Your task to perform on an android device: Open Amazon Image 0: 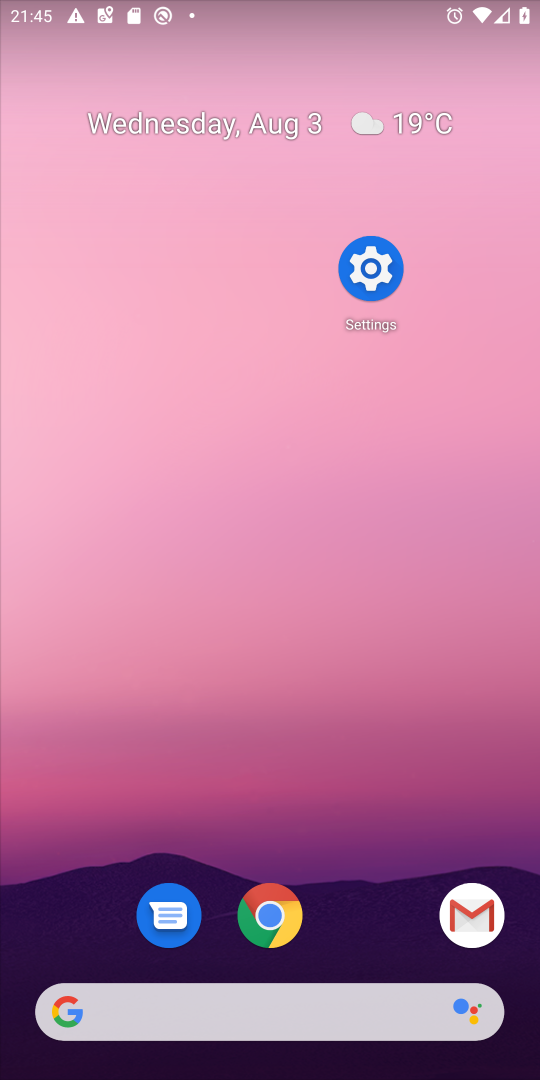
Step 0: press home button
Your task to perform on an android device: Open Amazon Image 1: 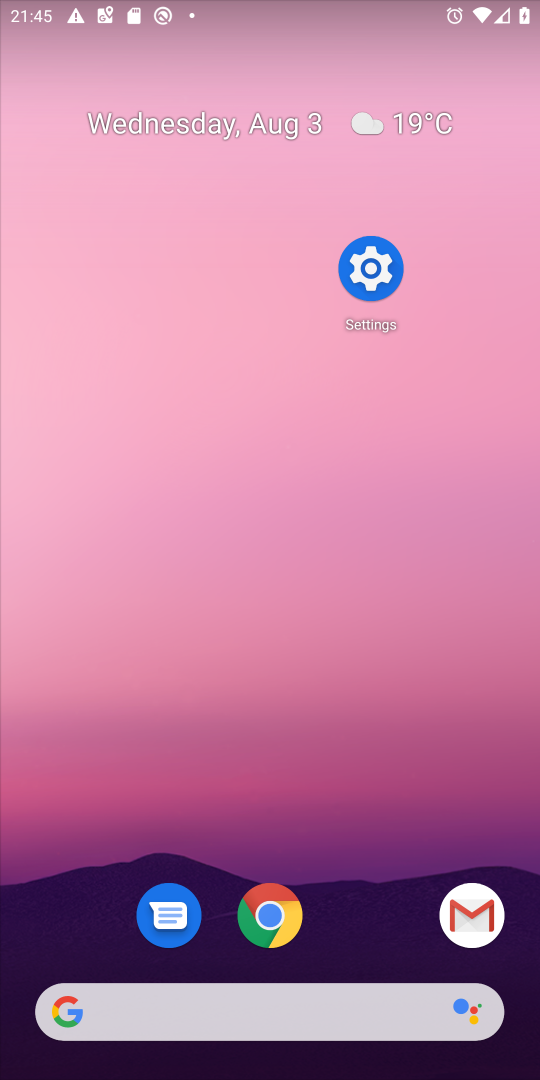
Step 1: drag from (355, 983) to (389, 140)
Your task to perform on an android device: Open Amazon Image 2: 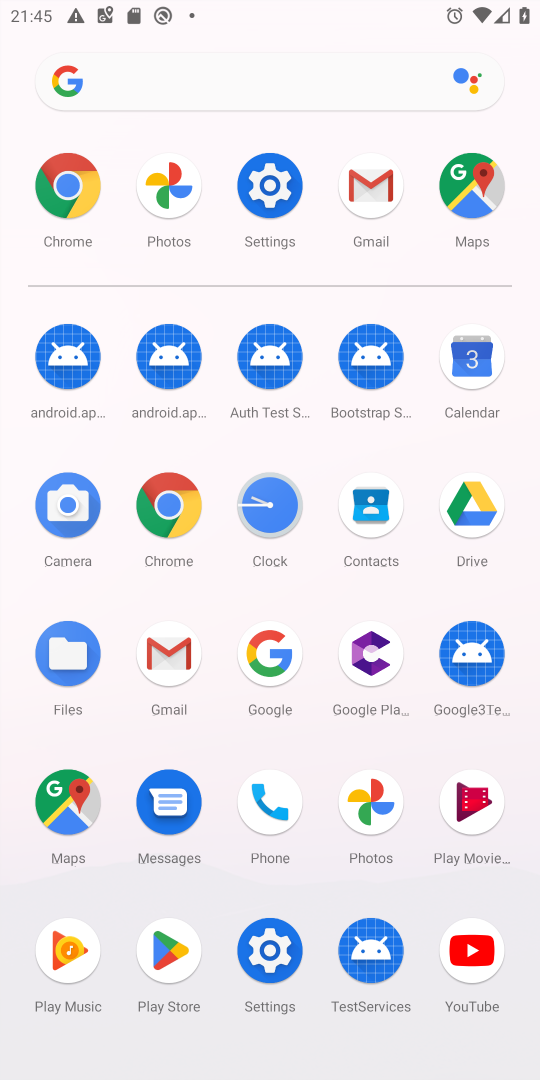
Step 2: click (86, 188)
Your task to perform on an android device: Open Amazon Image 3: 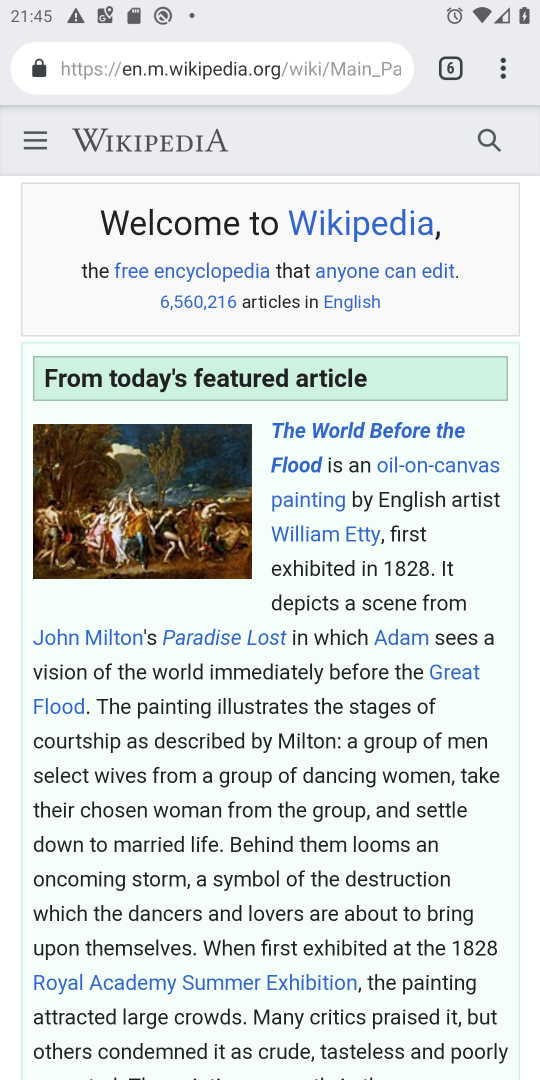
Step 3: click (439, 57)
Your task to perform on an android device: Open Amazon Image 4: 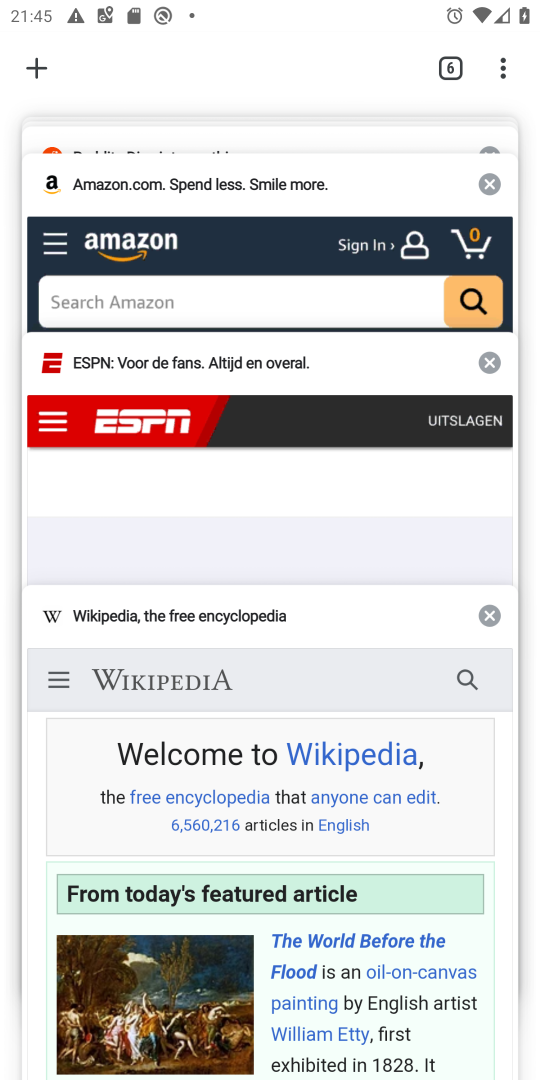
Step 4: click (27, 64)
Your task to perform on an android device: Open Amazon Image 5: 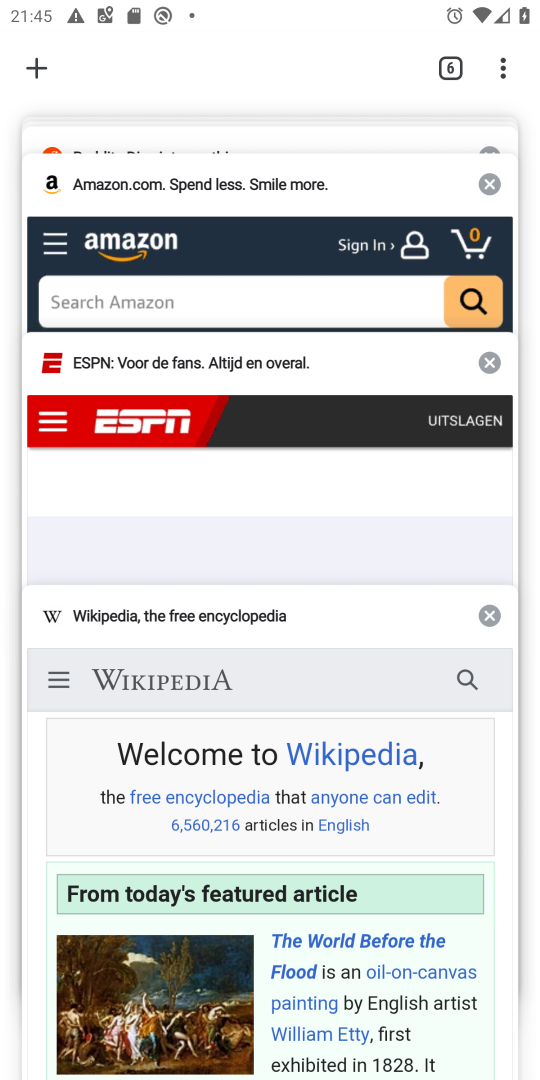
Step 5: click (47, 63)
Your task to perform on an android device: Open Amazon Image 6: 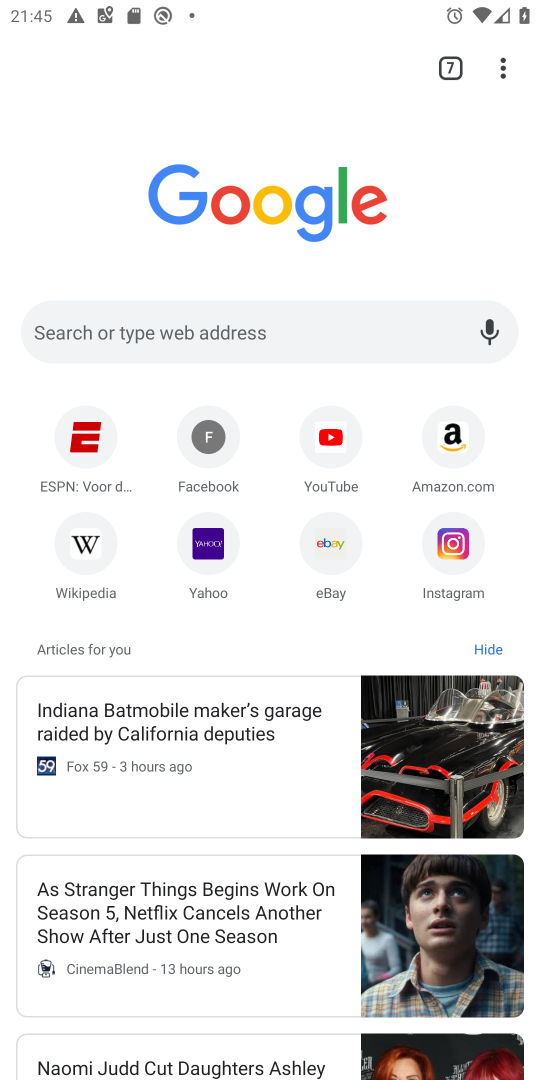
Step 6: click (444, 449)
Your task to perform on an android device: Open Amazon Image 7: 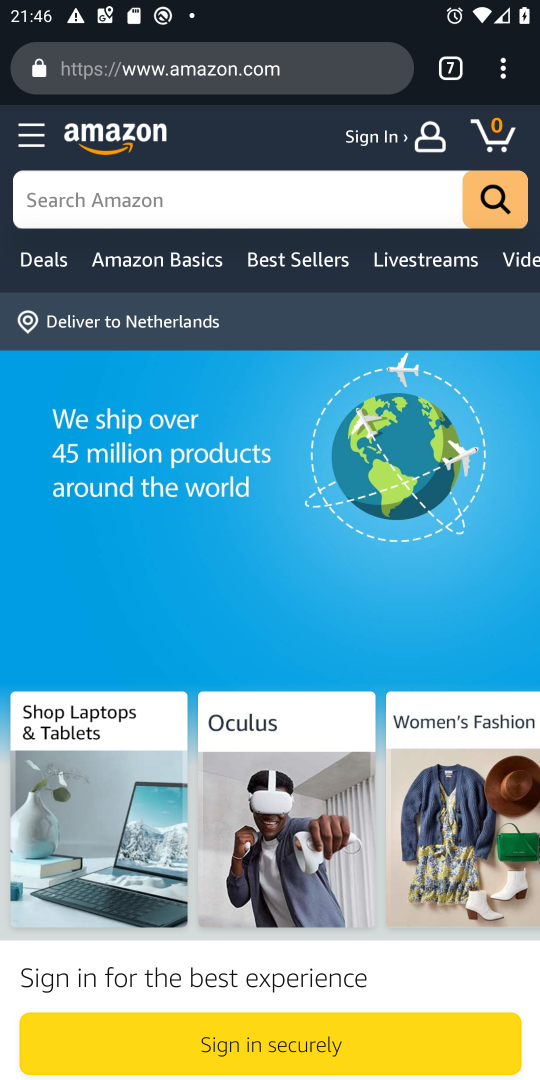
Step 7: task complete